Your task to perform on an android device: toggle translation in the chrome app Image 0: 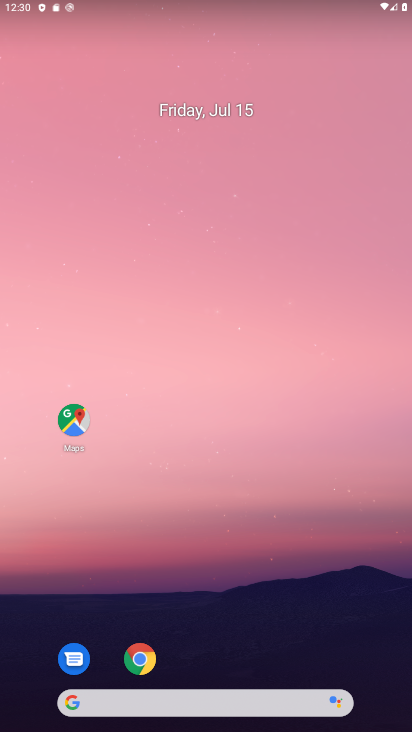
Step 0: drag from (351, 649) to (272, 47)
Your task to perform on an android device: toggle translation in the chrome app Image 1: 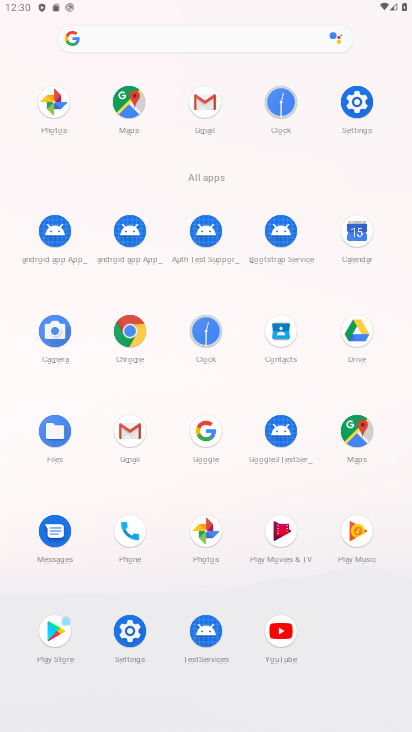
Step 1: click (126, 336)
Your task to perform on an android device: toggle translation in the chrome app Image 2: 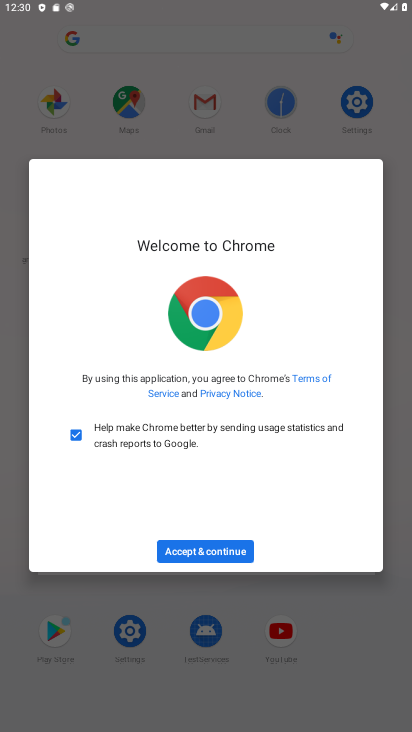
Step 2: click (222, 546)
Your task to perform on an android device: toggle translation in the chrome app Image 3: 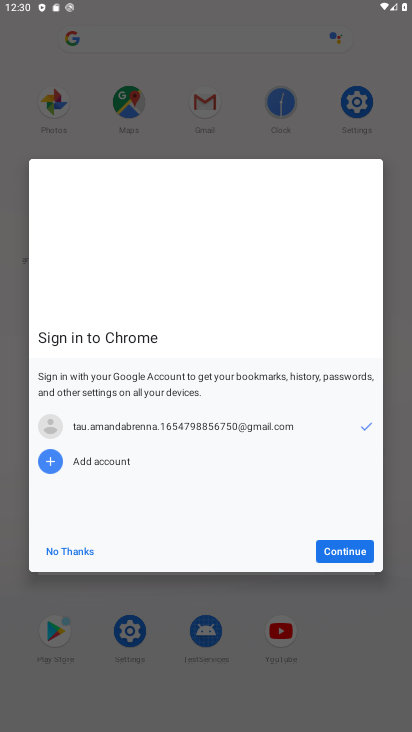
Step 3: click (365, 556)
Your task to perform on an android device: toggle translation in the chrome app Image 4: 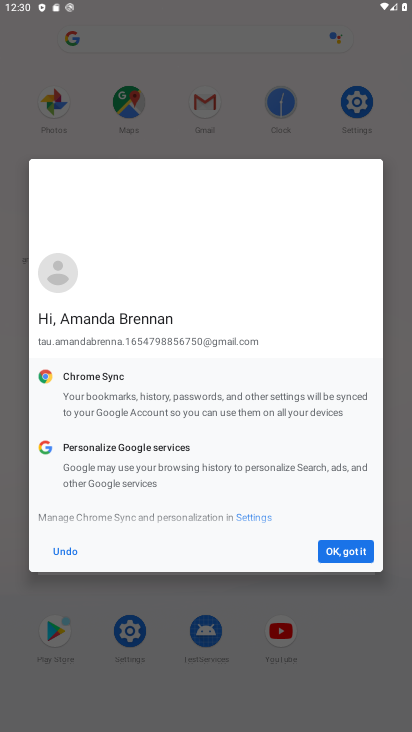
Step 4: click (365, 556)
Your task to perform on an android device: toggle translation in the chrome app Image 5: 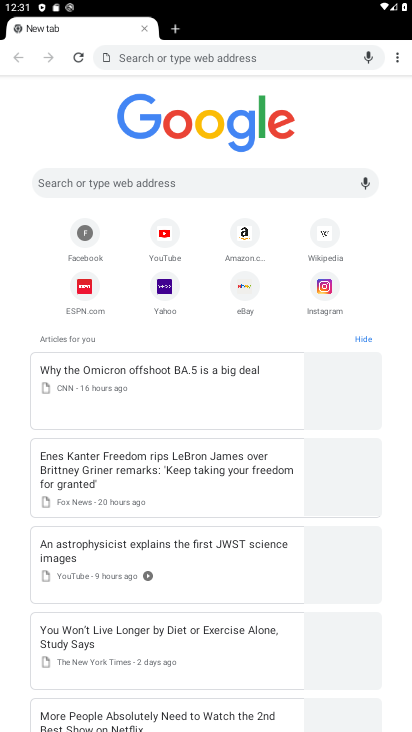
Step 5: click (396, 60)
Your task to perform on an android device: toggle translation in the chrome app Image 6: 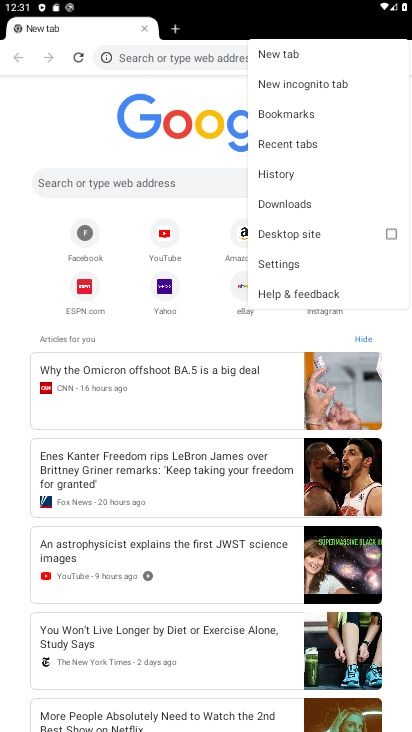
Step 6: click (299, 265)
Your task to perform on an android device: toggle translation in the chrome app Image 7: 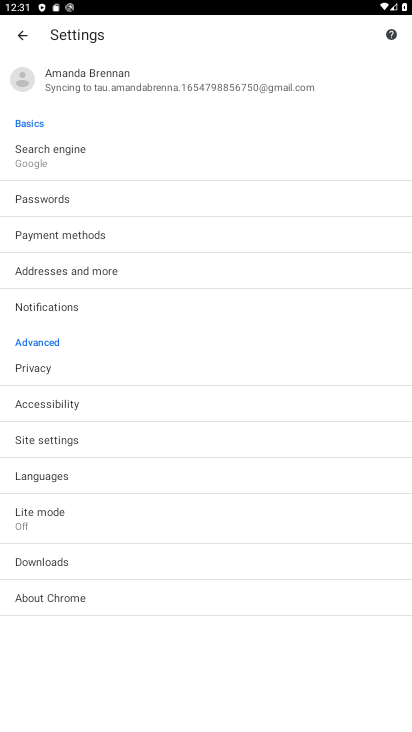
Step 7: click (334, 480)
Your task to perform on an android device: toggle translation in the chrome app Image 8: 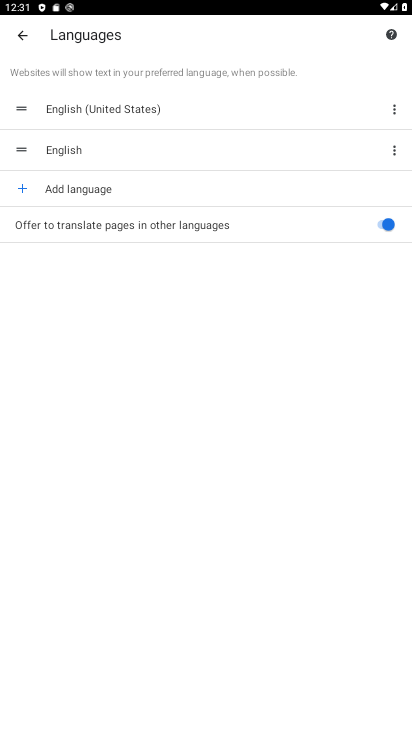
Step 8: click (384, 235)
Your task to perform on an android device: toggle translation in the chrome app Image 9: 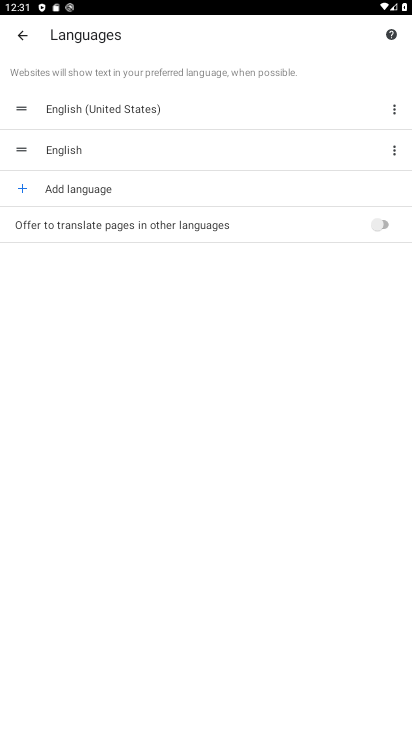
Step 9: task complete